Your task to perform on an android device: When is my next meeting? Image 0: 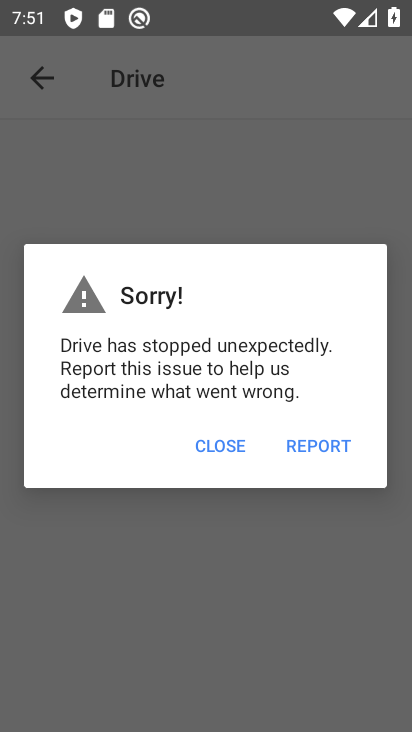
Step 0: press home button
Your task to perform on an android device: When is my next meeting? Image 1: 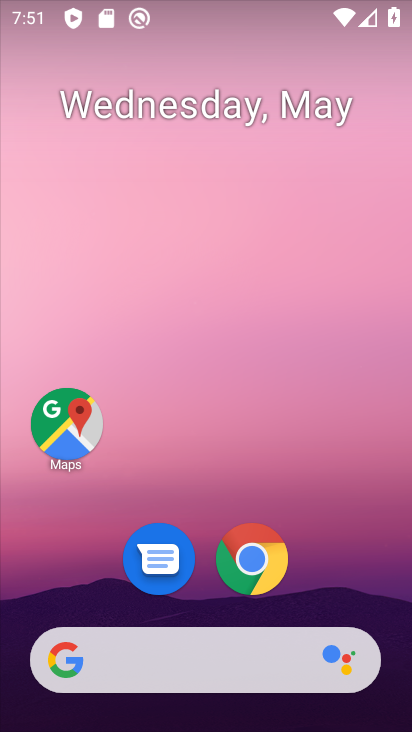
Step 1: drag from (337, 518) to (341, 30)
Your task to perform on an android device: When is my next meeting? Image 2: 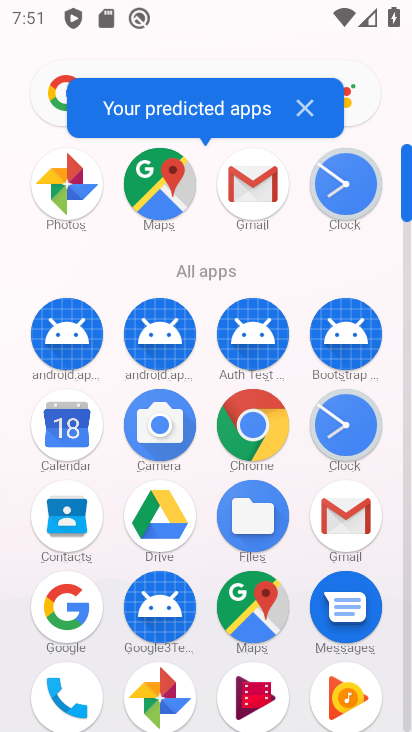
Step 2: click (75, 427)
Your task to perform on an android device: When is my next meeting? Image 3: 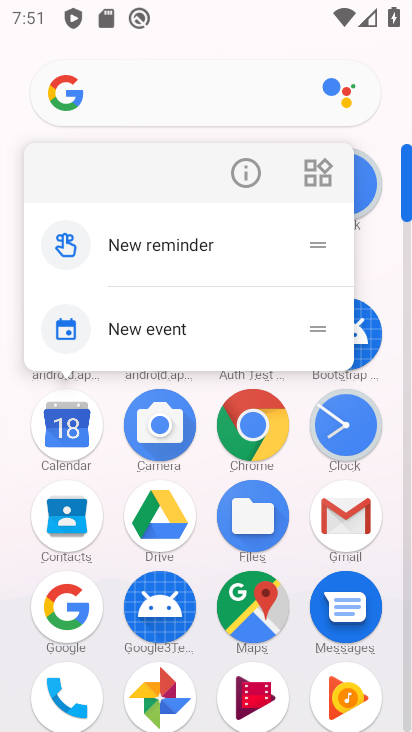
Step 3: click (69, 428)
Your task to perform on an android device: When is my next meeting? Image 4: 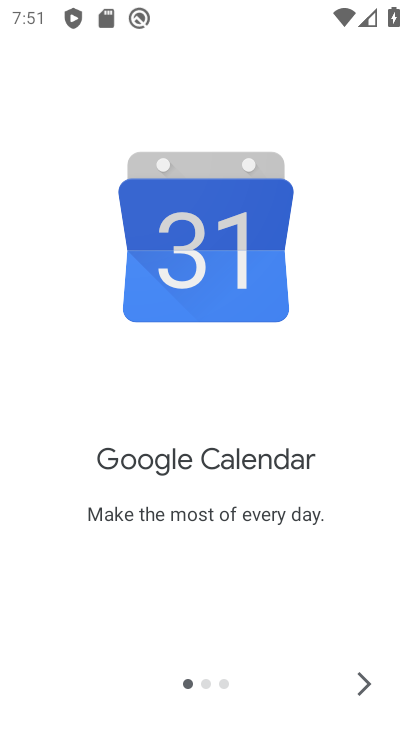
Step 4: click (373, 686)
Your task to perform on an android device: When is my next meeting? Image 5: 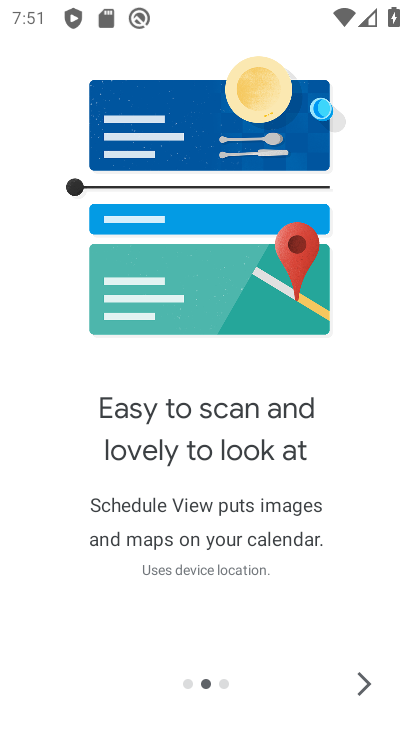
Step 5: click (373, 686)
Your task to perform on an android device: When is my next meeting? Image 6: 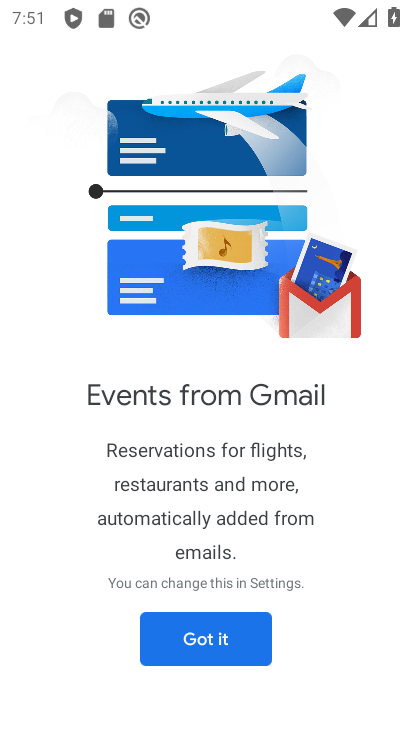
Step 6: click (205, 635)
Your task to perform on an android device: When is my next meeting? Image 7: 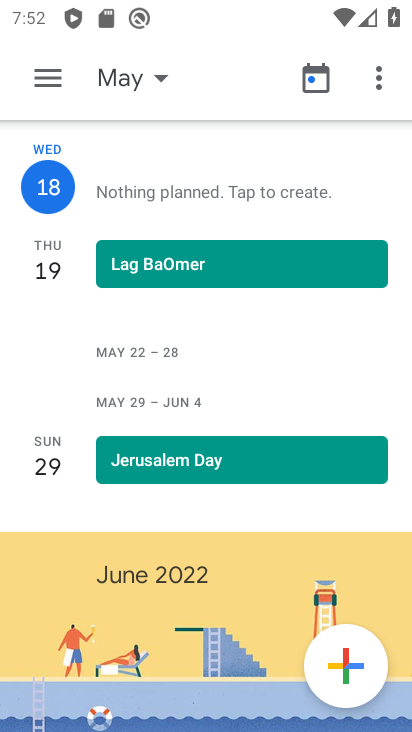
Step 7: click (158, 88)
Your task to perform on an android device: When is my next meeting? Image 8: 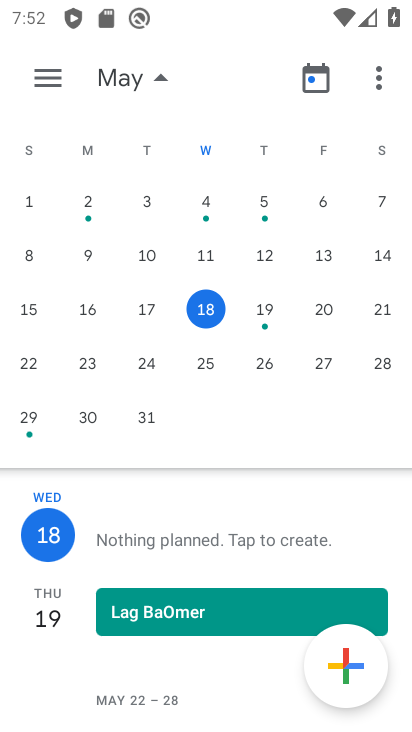
Step 8: click (328, 310)
Your task to perform on an android device: When is my next meeting? Image 9: 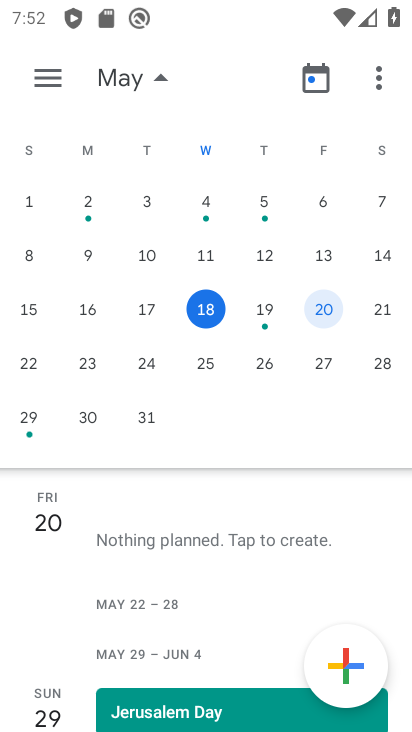
Step 9: task complete